Your task to perform on an android device: toggle notification dots Image 0: 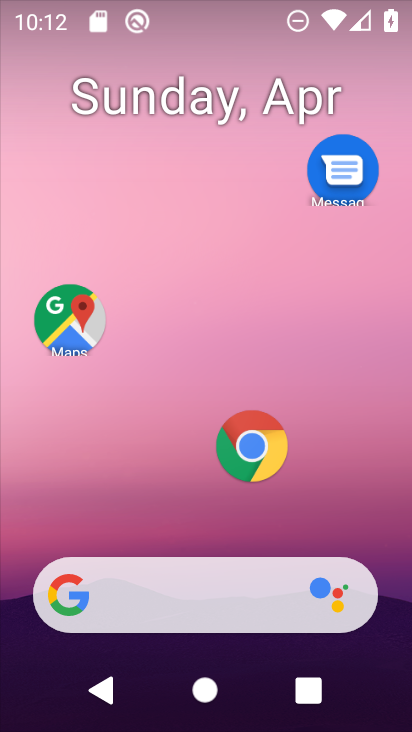
Step 0: drag from (180, 538) to (177, 183)
Your task to perform on an android device: toggle notification dots Image 1: 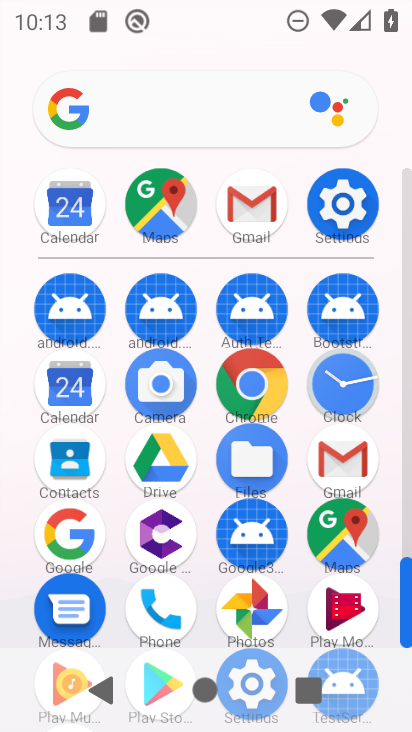
Step 1: click (359, 191)
Your task to perform on an android device: toggle notification dots Image 2: 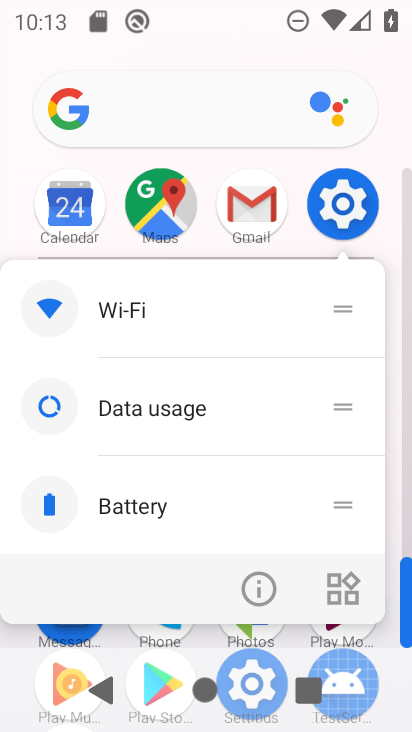
Step 2: click (259, 588)
Your task to perform on an android device: toggle notification dots Image 3: 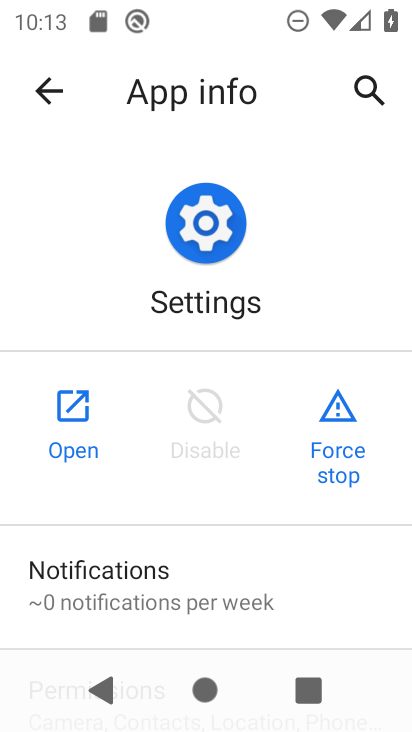
Step 3: click (67, 401)
Your task to perform on an android device: toggle notification dots Image 4: 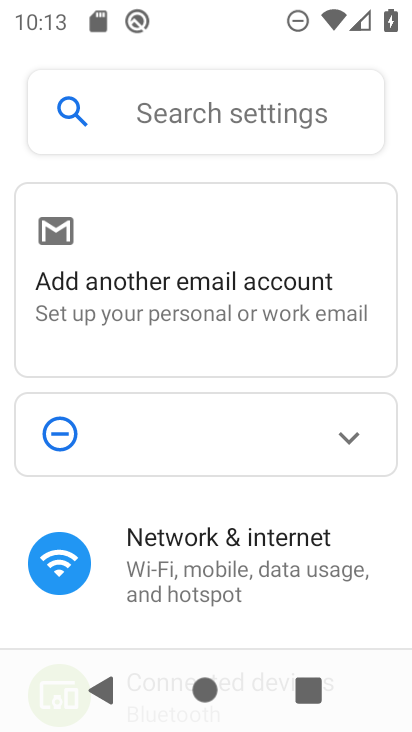
Step 4: drag from (227, 405) to (231, 89)
Your task to perform on an android device: toggle notification dots Image 5: 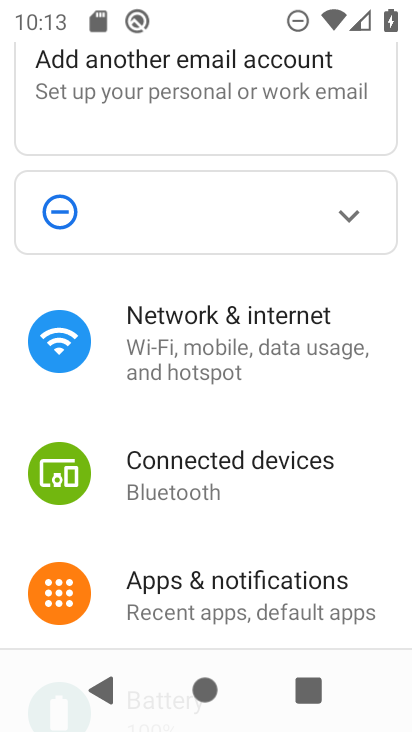
Step 5: drag from (234, 511) to (278, 131)
Your task to perform on an android device: toggle notification dots Image 6: 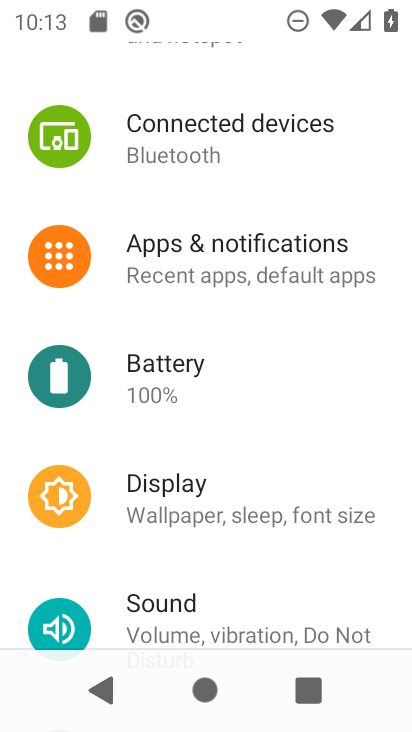
Step 6: click (194, 240)
Your task to perform on an android device: toggle notification dots Image 7: 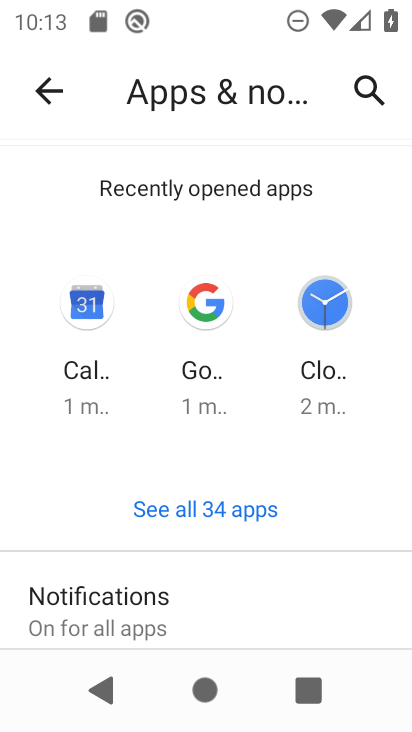
Step 7: click (149, 603)
Your task to perform on an android device: toggle notification dots Image 8: 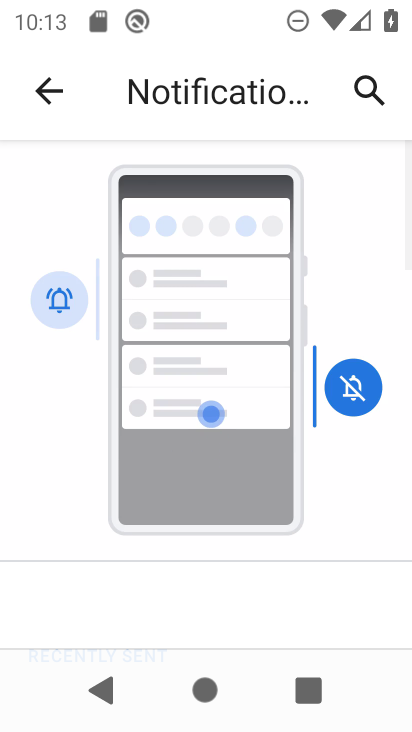
Step 8: drag from (228, 550) to (305, 129)
Your task to perform on an android device: toggle notification dots Image 9: 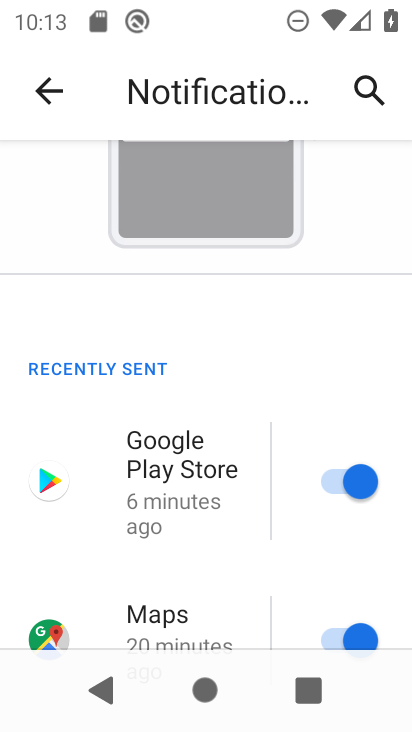
Step 9: drag from (225, 500) to (270, 180)
Your task to perform on an android device: toggle notification dots Image 10: 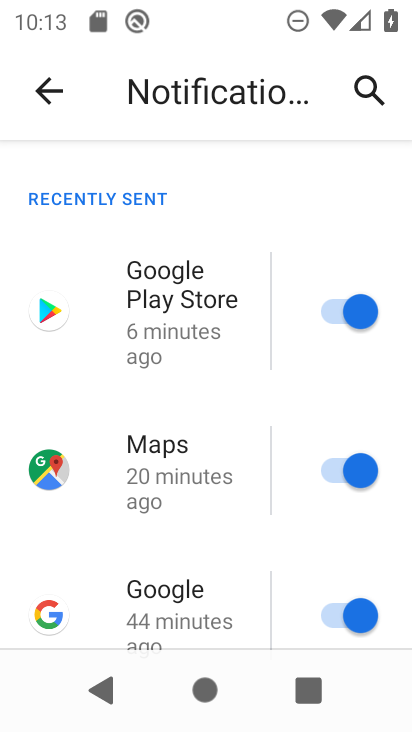
Step 10: drag from (246, 521) to (252, 125)
Your task to perform on an android device: toggle notification dots Image 11: 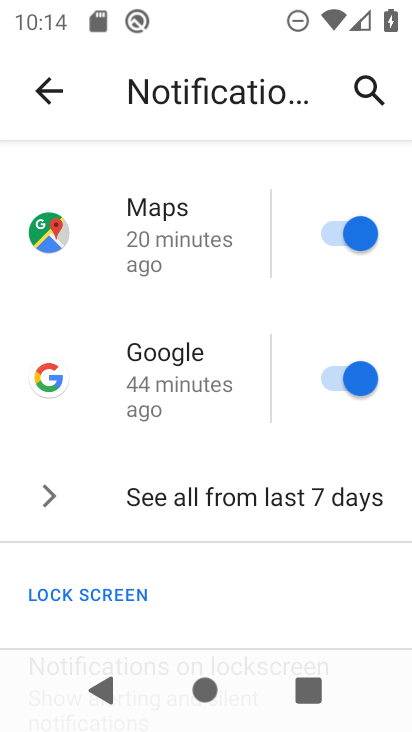
Step 11: drag from (203, 583) to (247, 198)
Your task to perform on an android device: toggle notification dots Image 12: 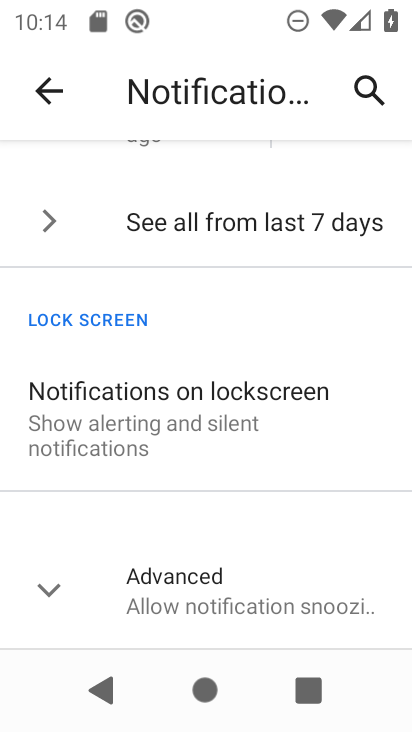
Step 12: click (178, 583)
Your task to perform on an android device: toggle notification dots Image 13: 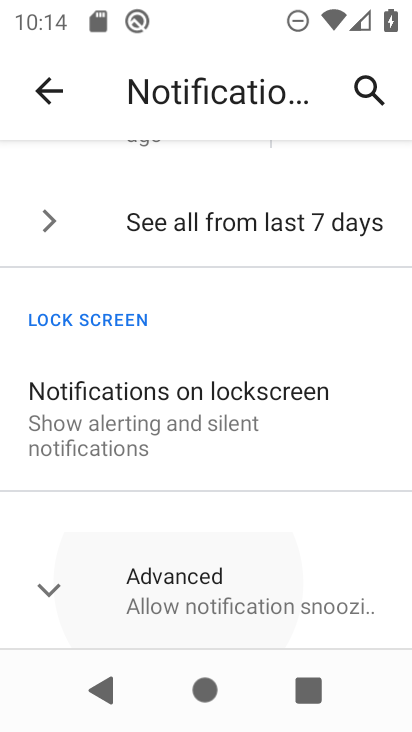
Step 13: drag from (178, 583) to (256, 70)
Your task to perform on an android device: toggle notification dots Image 14: 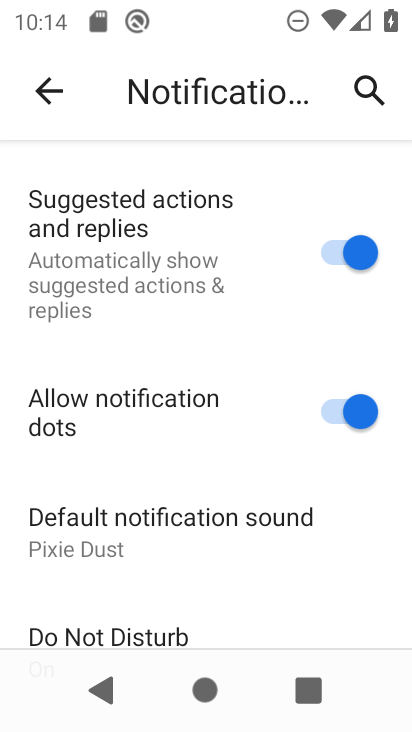
Step 14: click (358, 408)
Your task to perform on an android device: toggle notification dots Image 15: 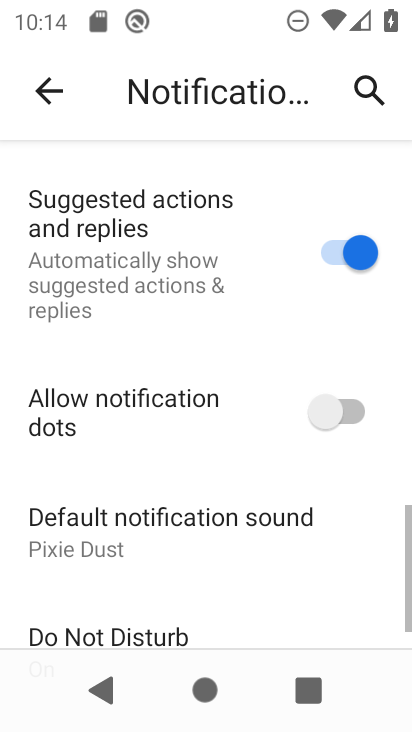
Step 15: task complete